Your task to perform on an android device: remove spam from my inbox in the gmail app Image 0: 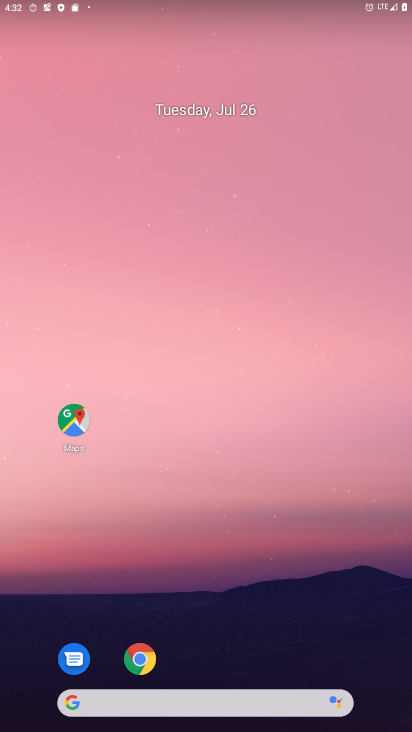
Step 0: press home button
Your task to perform on an android device: remove spam from my inbox in the gmail app Image 1: 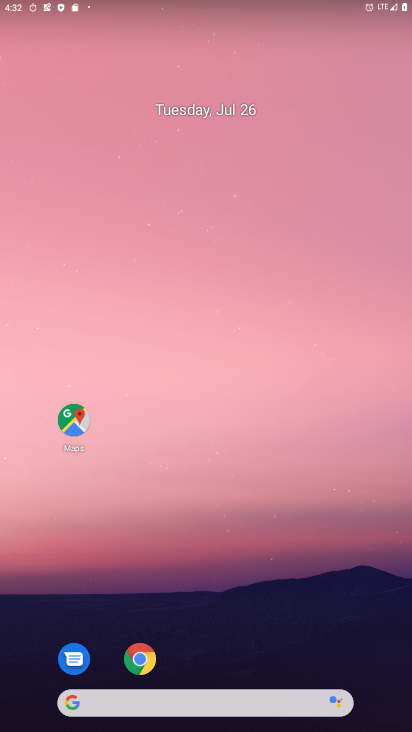
Step 1: drag from (229, 652) to (256, 49)
Your task to perform on an android device: remove spam from my inbox in the gmail app Image 2: 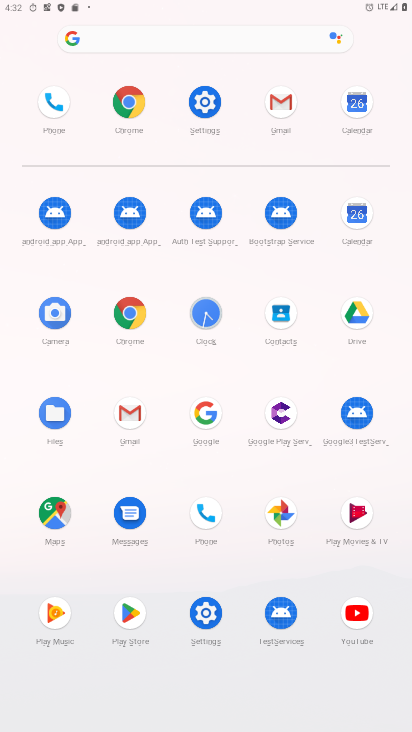
Step 2: click (285, 103)
Your task to perform on an android device: remove spam from my inbox in the gmail app Image 3: 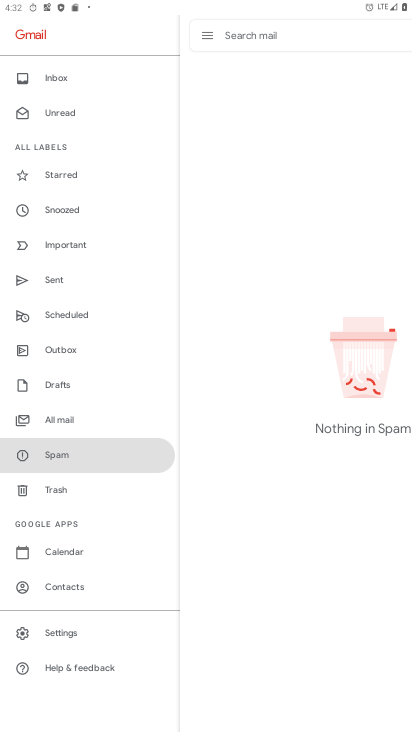
Step 3: click (75, 450)
Your task to perform on an android device: remove spam from my inbox in the gmail app Image 4: 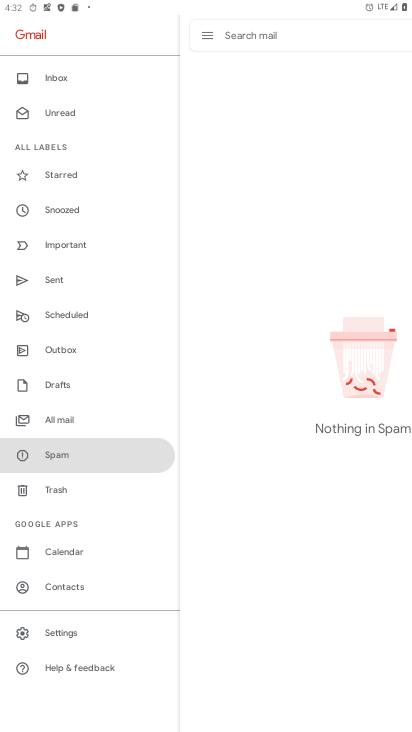
Step 4: task complete